Your task to perform on an android device: What's on my calendar today? Image 0: 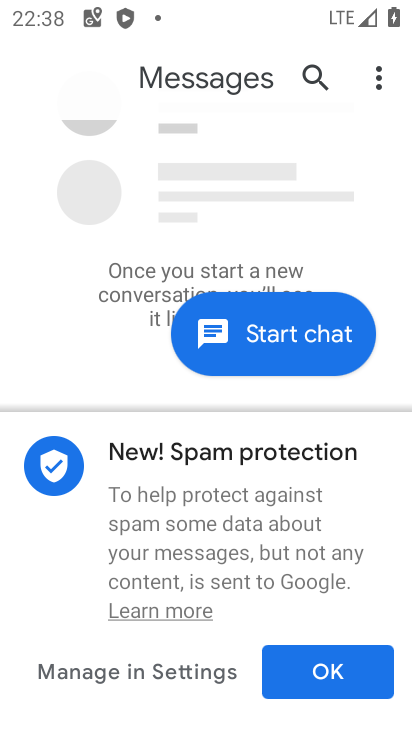
Step 0: press home button
Your task to perform on an android device: What's on my calendar today? Image 1: 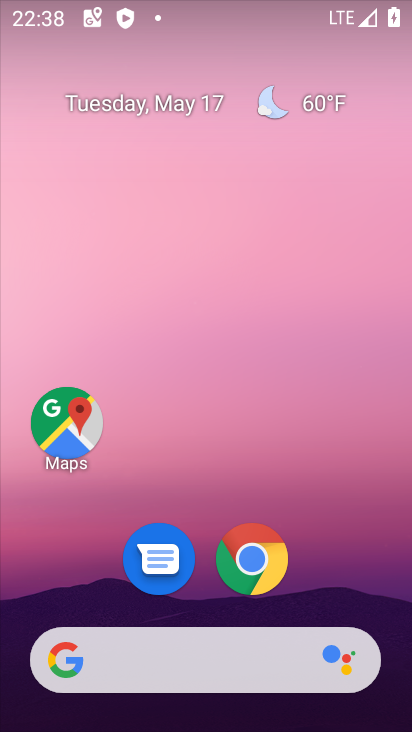
Step 1: drag from (352, 551) to (321, 130)
Your task to perform on an android device: What's on my calendar today? Image 2: 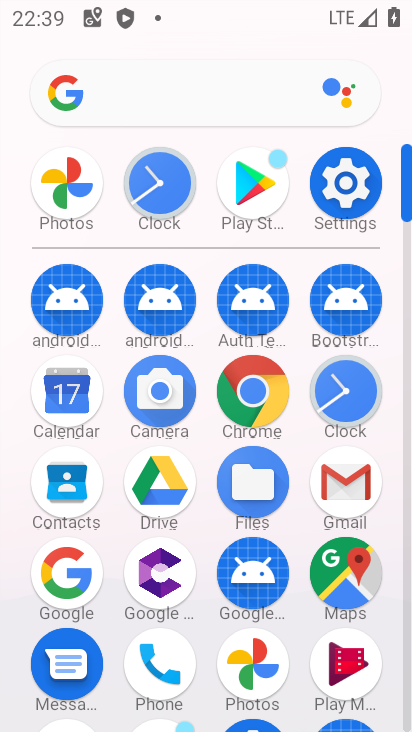
Step 2: click (67, 405)
Your task to perform on an android device: What's on my calendar today? Image 3: 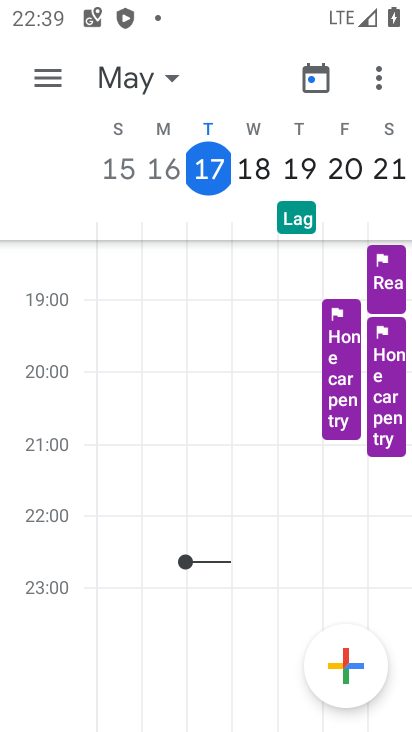
Step 3: click (204, 162)
Your task to perform on an android device: What's on my calendar today? Image 4: 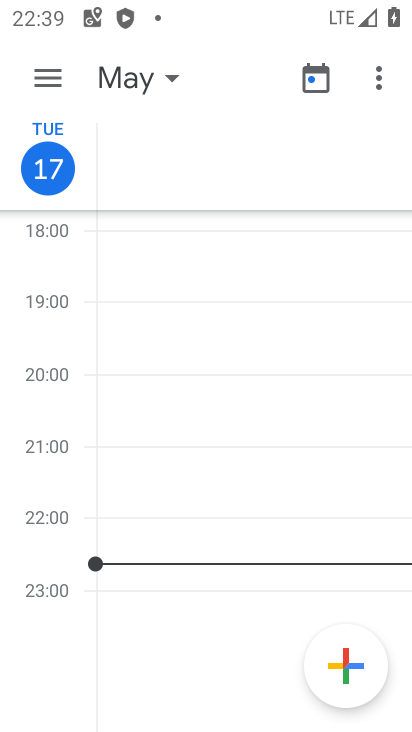
Step 4: task complete